Your task to perform on an android device: Open network settings Image 0: 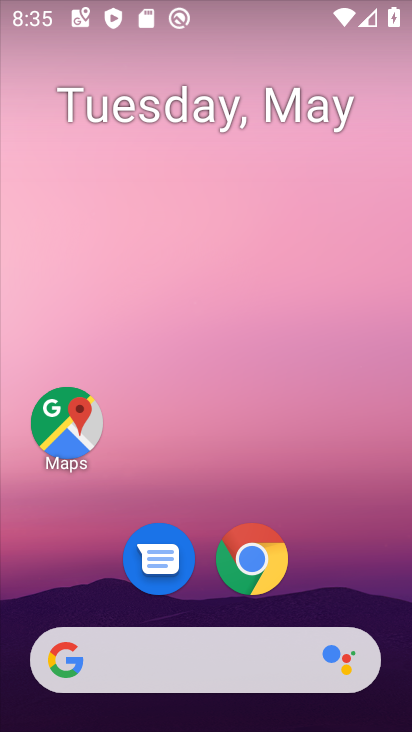
Step 0: click (257, 195)
Your task to perform on an android device: Open network settings Image 1: 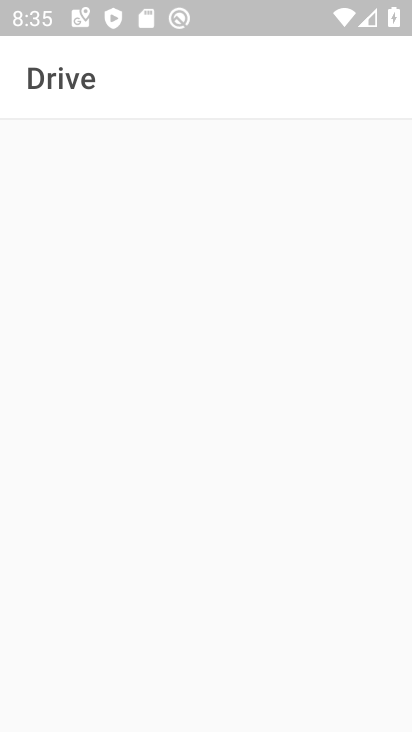
Step 1: press home button
Your task to perform on an android device: Open network settings Image 2: 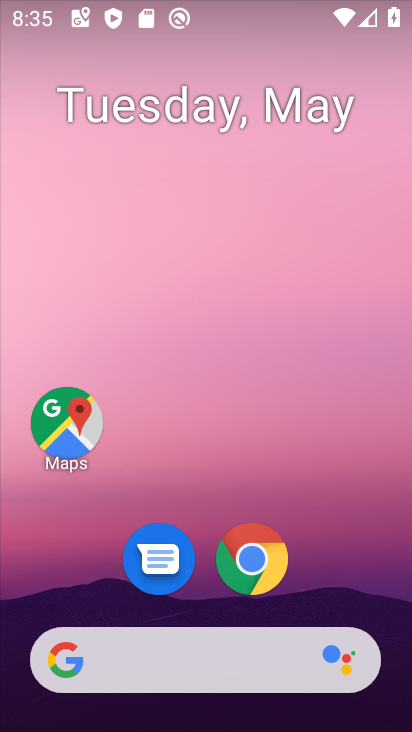
Step 2: drag from (206, 644) to (252, 114)
Your task to perform on an android device: Open network settings Image 3: 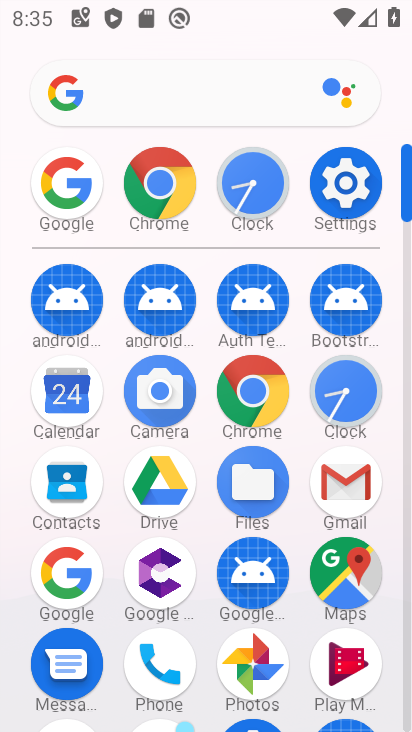
Step 3: click (331, 200)
Your task to perform on an android device: Open network settings Image 4: 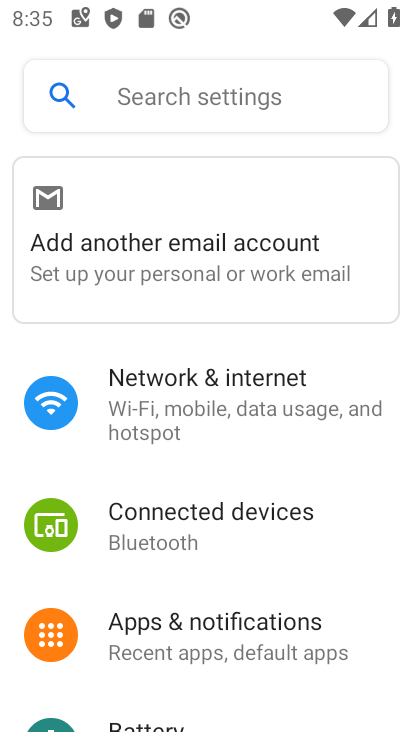
Step 4: click (170, 408)
Your task to perform on an android device: Open network settings Image 5: 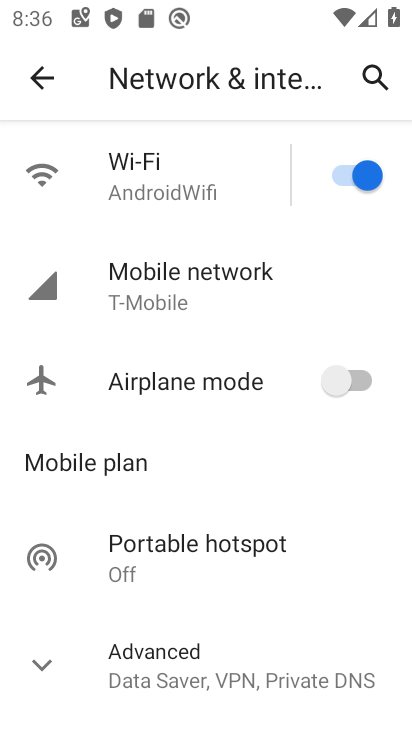
Step 5: task complete